Your task to perform on an android device: empty trash in google photos Image 0: 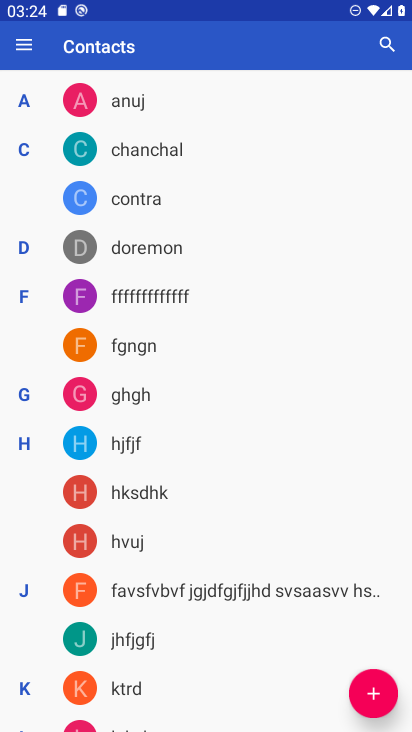
Step 0: press home button
Your task to perform on an android device: empty trash in google photos Image 1: 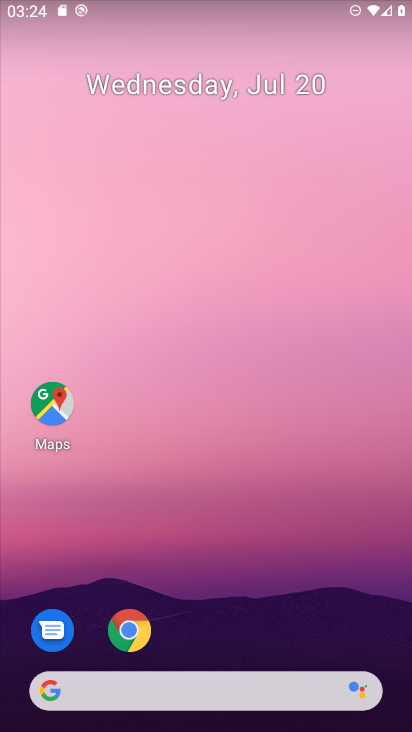
Step 1: drag from (385, 629) to (398, 90)
Your task to perform on an android device: empty trash in google photos Image 2: 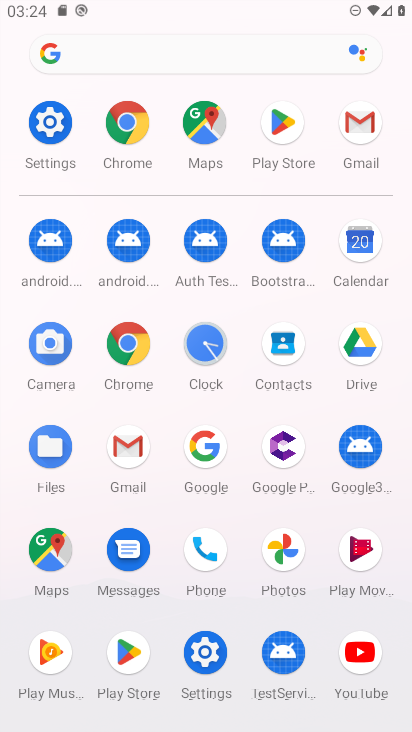
Step 2: click (282, 553)
Your task to perform on an android device: empty trash in google photos Image 3: 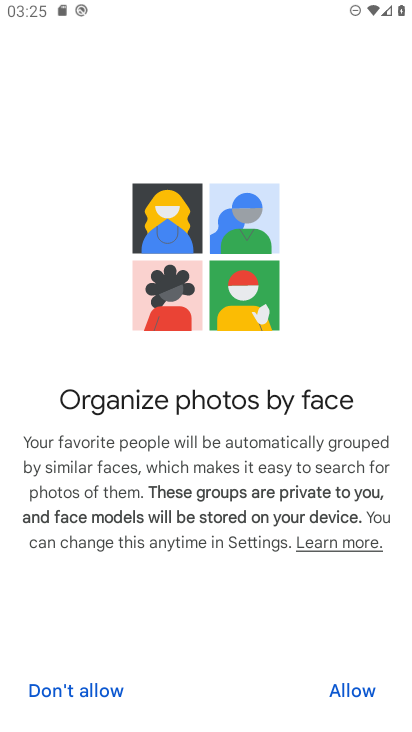
Step 3: click (111, 690)
Your task to perform on an android device: empty trash in google photos Image 4: 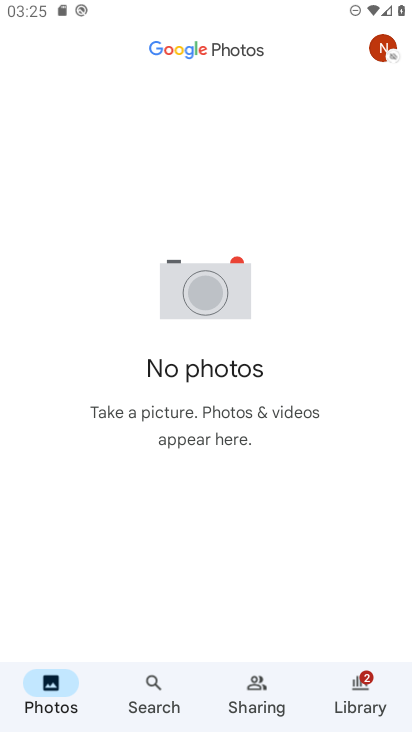
Step 4: click (359, 680)
Your task to perform on an android device: empty trash in google photos Image 5: 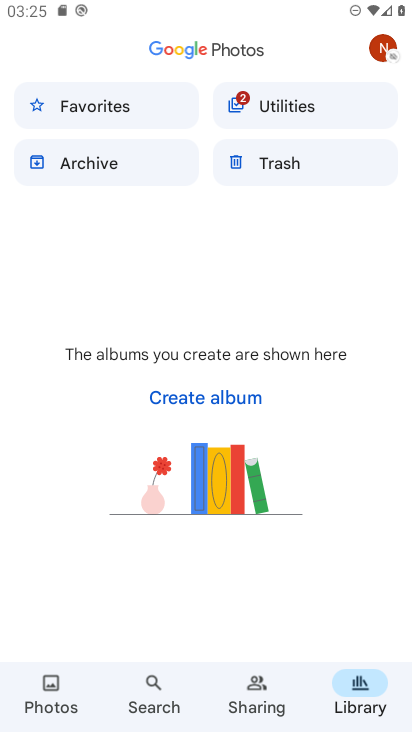
Step 5: click (299, 166)
Your task to perform on an android device: empty trash in google photos Image 6: 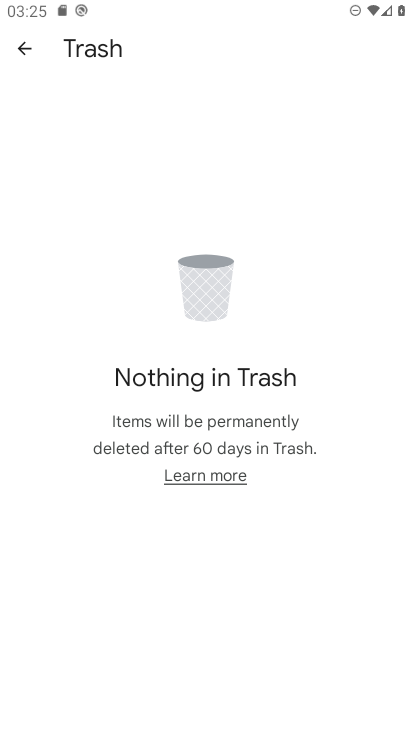
Step 6: task complete